Your task to perform on an android device: open wifi settings Image 0: 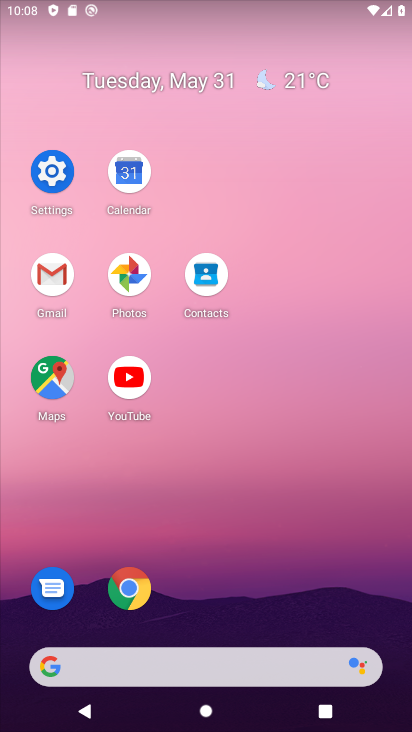
Step 0: click (47, 180)
Your task to perform on an android device: open wifi settings Image 1: 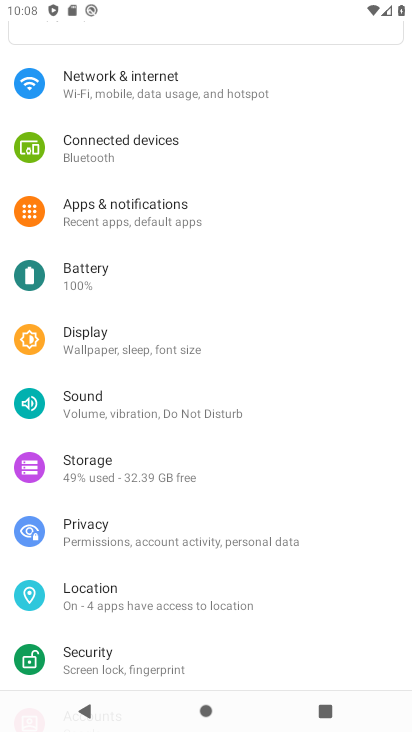
Step 1: click (208, 105)
Your task to perform on an android device: open wifi settings Image 2: 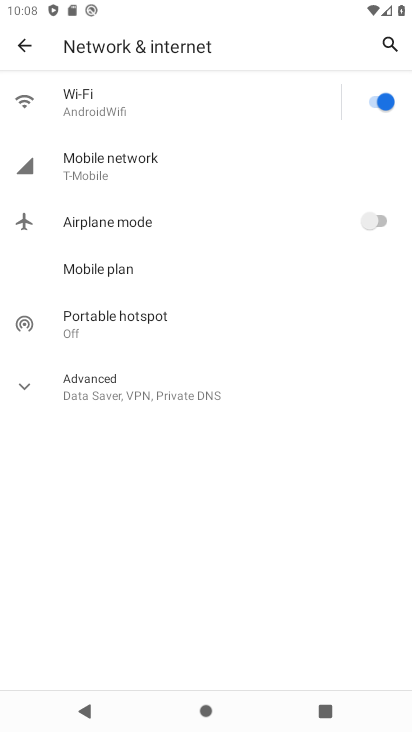
Step 2: click (207, 105)
Your task to perform on an android device: open wifi settings Image 3: 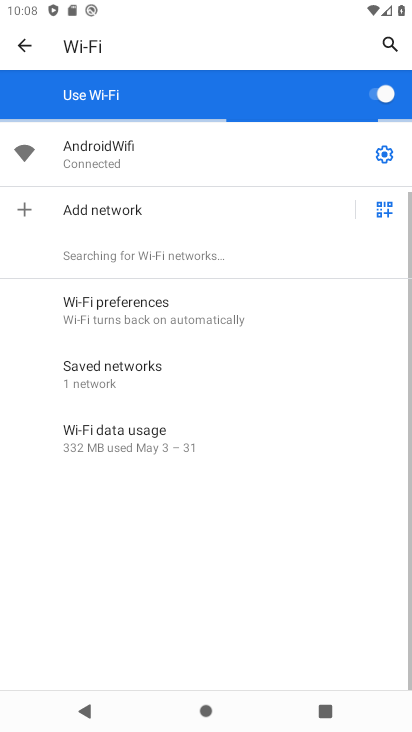
Step 3: click (388, 154)
Your task to perform on an android device: open wifi settings Image 4: 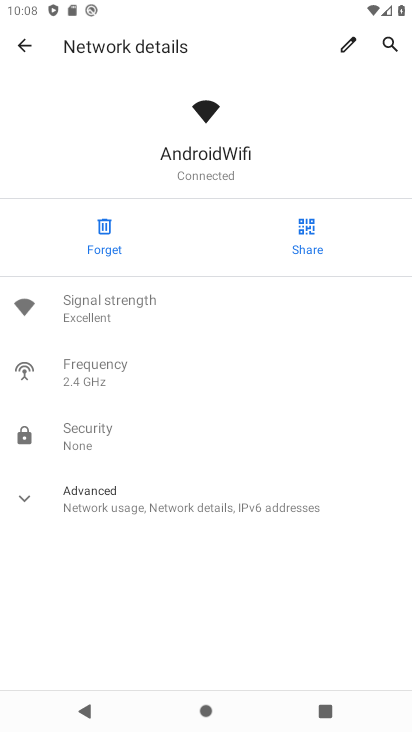
Step 4: task complete